Your task to perform on an android device: Go to location settings Image 0: 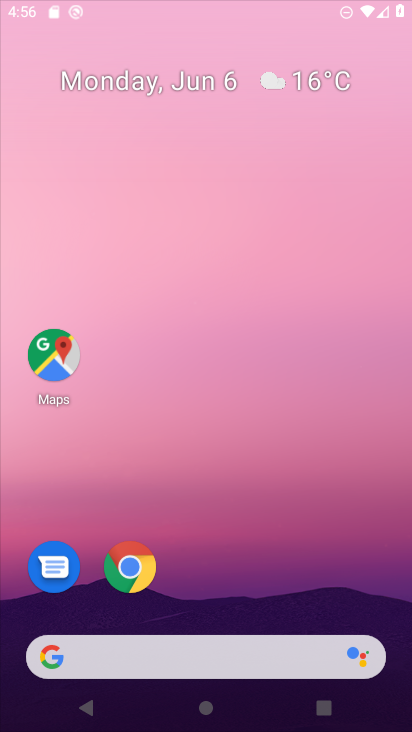
Step 0: drag from (151, 289) to (143, 112)
Your task to perform on an android device: Go to location settings Image 1: 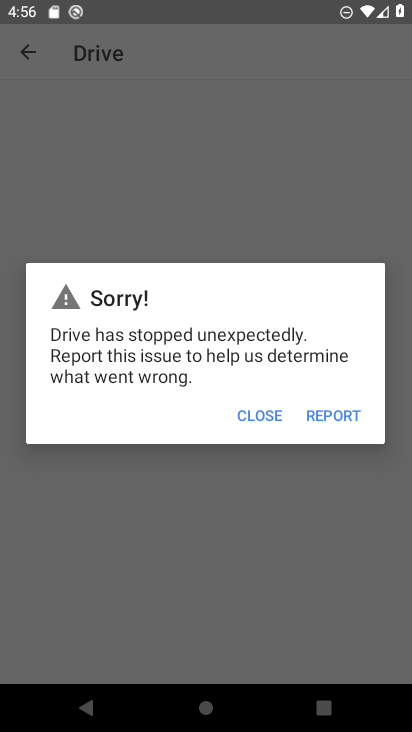
Step 1: click (273, 414)
Your task to perform on an android device: Go to location settings Image 2: 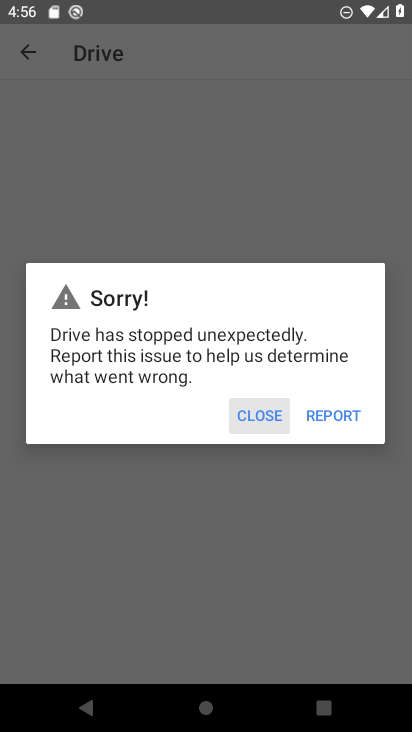
Step 2: click (264, 415)
Your task to perform on an android device: Go to location settings Image 3: 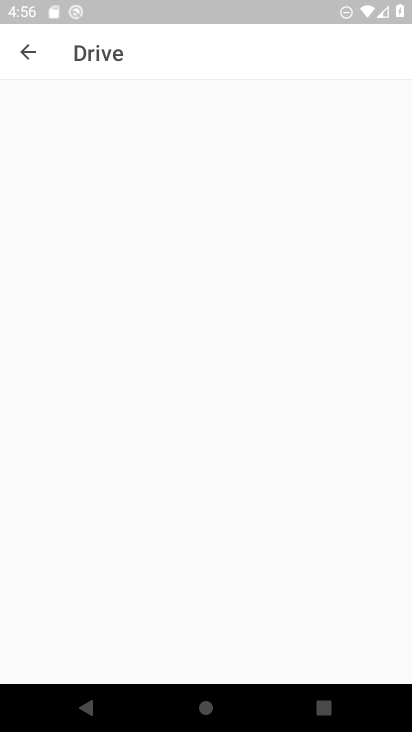
Step 3: click (264, 415)
Your task to perform on an android device: Go to location settings Image 4: 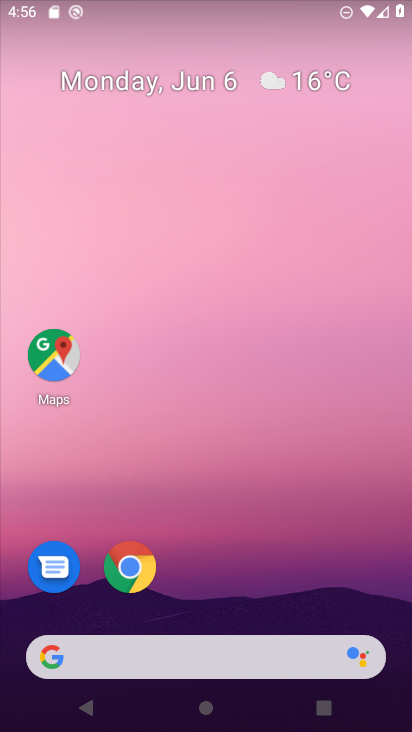
Step 4: drag from (239, 665) to (93, 56)
Your task to perform on an android device: Go to location settings Image 5: 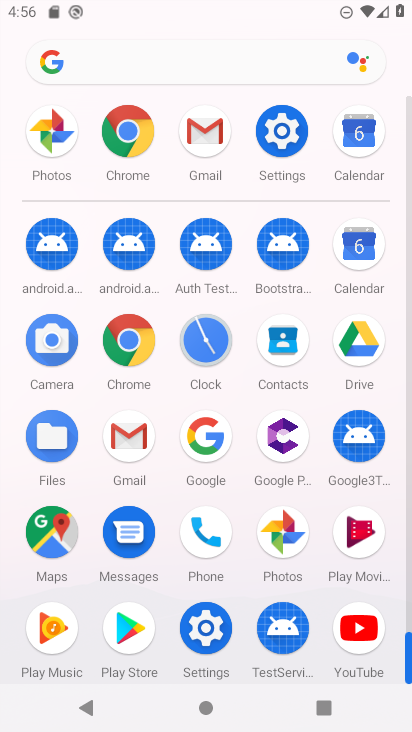
Step 5: click (288, 125)
Your task to perform on an android device: Go to location settings Image 6: 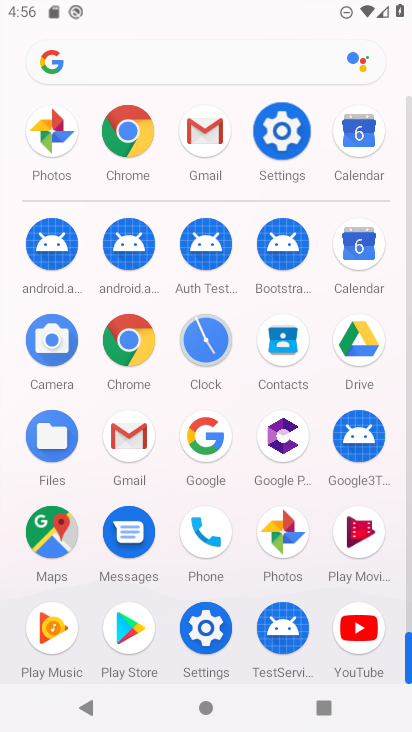
Step 6: click (287, 128)
Your task to perform on an android device: Go to location settings Image 7: 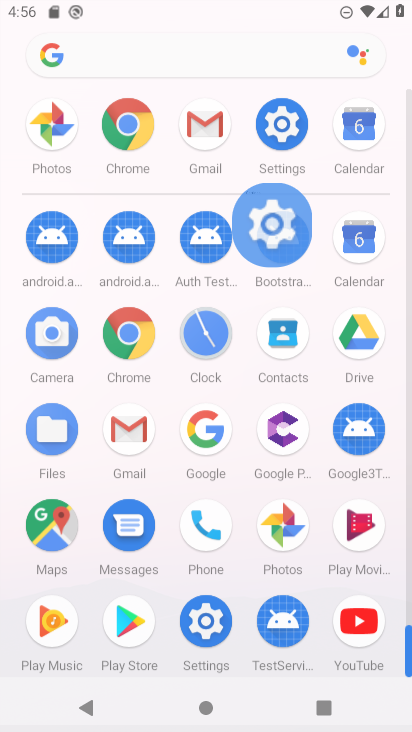
Step 7: click (287, 128)
Your task to perform on an android device: Go to location settings Image 8: 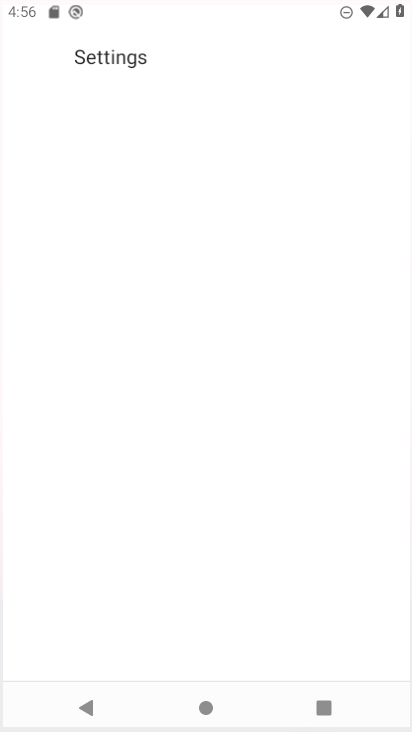
Step 8: click (289, 129)
Your task to perform on an android device: Go to location settings Image 9: 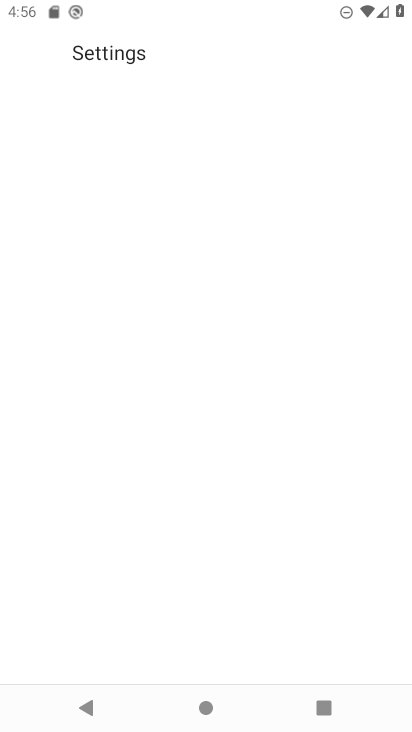
Step 9: click (290, 130)
Your task to perform on an android device: Go to location settings Image 10: 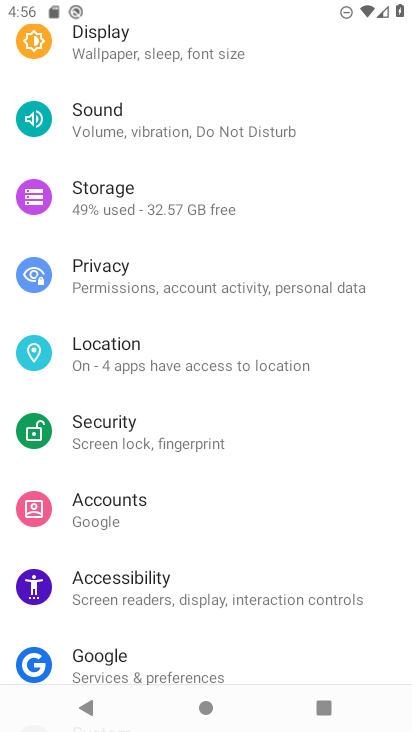
Step 10: click (125, 361)
Your task to perform on an android device: Go to location settings Image 11: 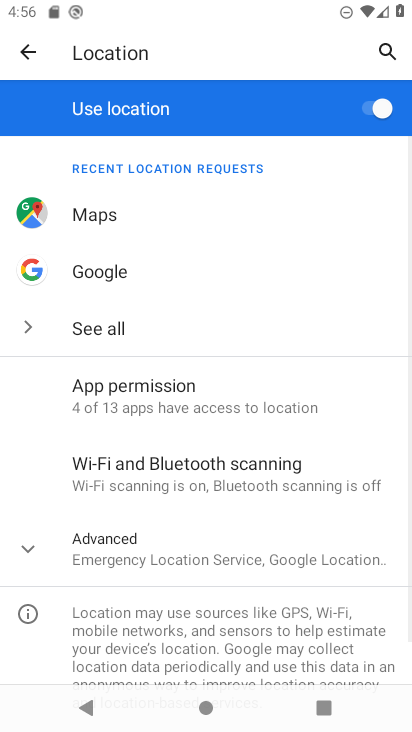
Step 11: task complete